Your task to perform on an android device: install app "Duolingo: language lessons" Image 0: 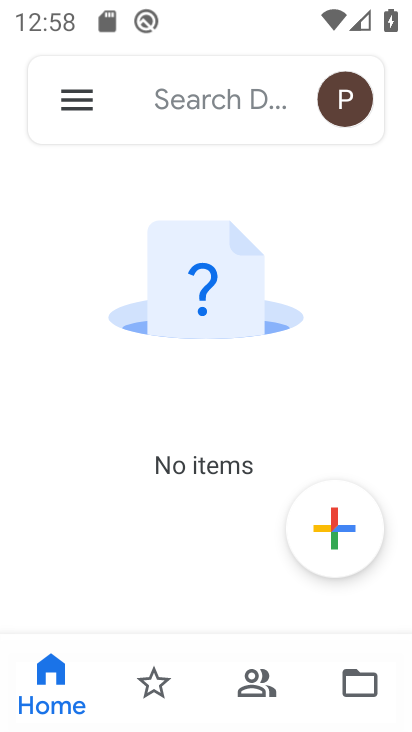
Step 0: press home button
Your task to perform on an android device: install app "Duolingo: language lessons" Image 1: 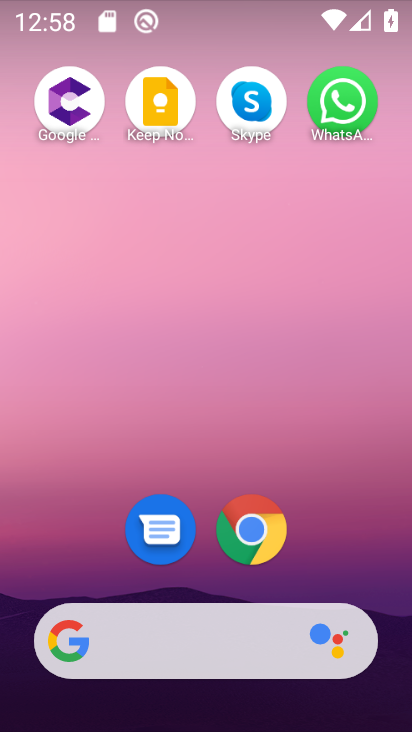
Step 1: drag from (237, 591) to (228, 113)
Your task to perform on an android device: install app "Duolingo: language lessons" Image 2: 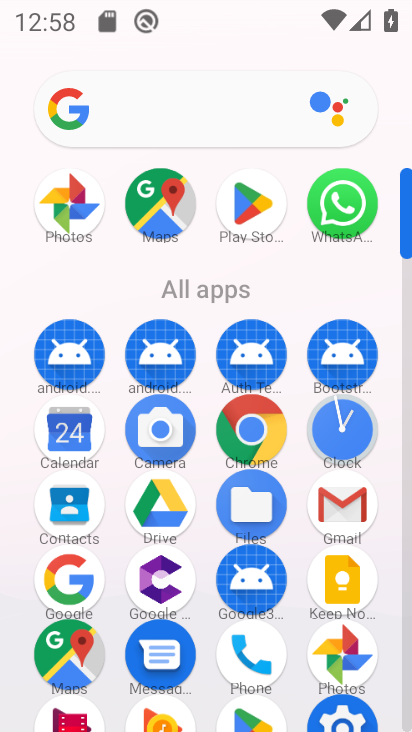
Step 2: click (262, 216)
Your task to perform on an android device: install app "Duolingo: language lessons" Image 3: 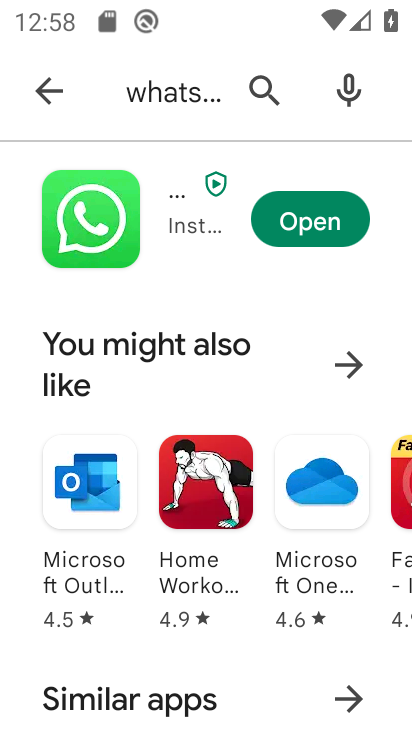
Step 3: click (48, 76)
Your task to perform on an android device: install app "Duolingo: language lessons" Image 4: 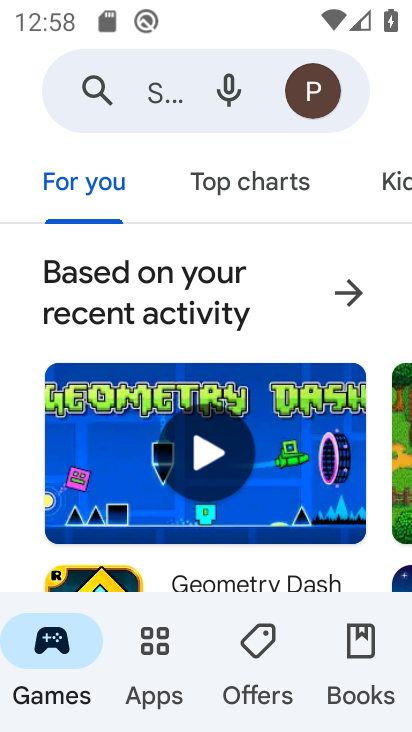
Step 4: click (155, 91)
Your task to perform on an android device: install app "Duolingo: language lessons" Image 5: 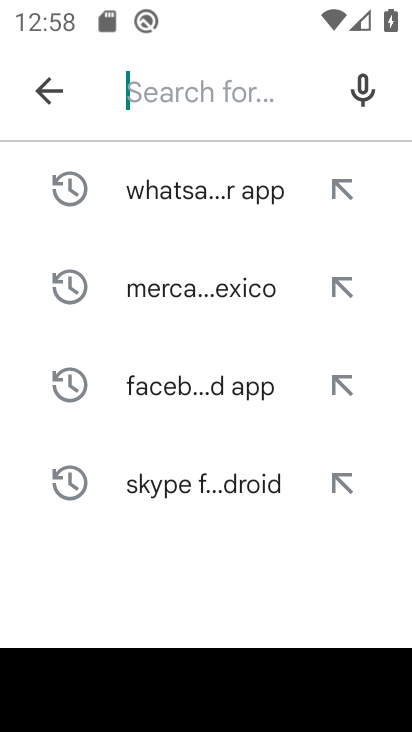
Step 5: type "Duolingo: language lessons "
Your task to perform on an android device: install app "Duolingo: language lessons" Image 6: 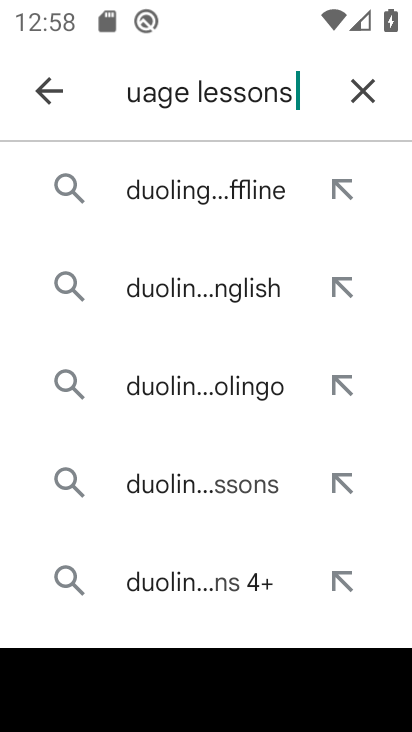
Step 6: click (127, 193)
Your task to perform on an android device: install app "Duolingo: language lessons" Image 7: 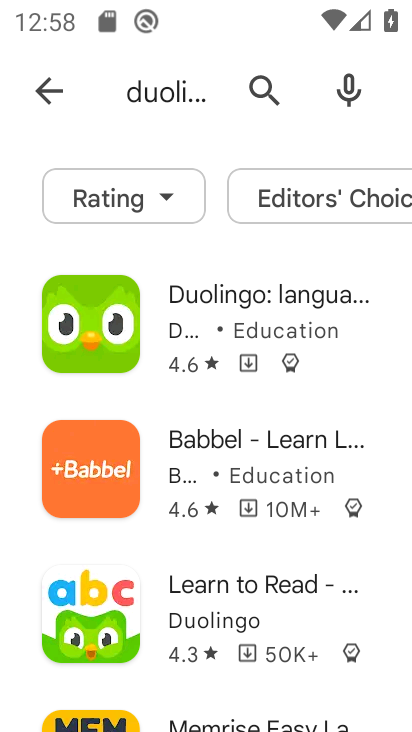
Step 7: click (243, 303)
Your task to perform on an android device: install app "Duolingo: language lessons" Image 8: 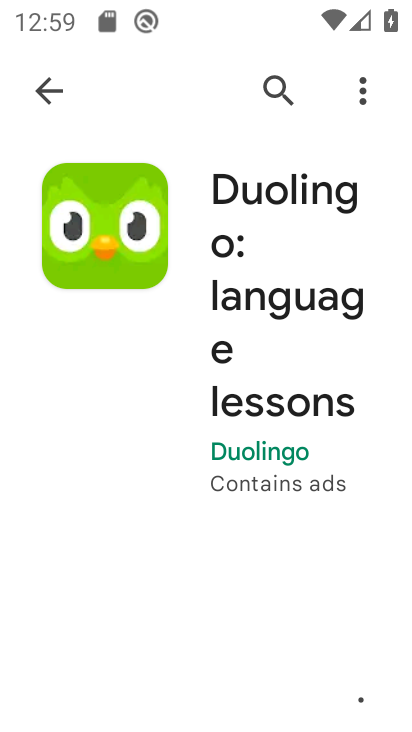
Step 8: drag from (197, 516) to (182, 212)
Your task to perform on an android device: install app "Duolingo: language lessons" Image 9: 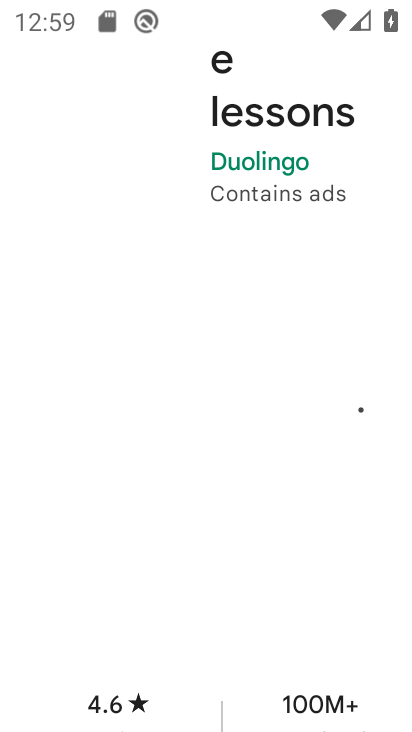
Step 9: drag from (169, 516) to (196, 211)
Your task to perform on an android device: install app "Duolingo: language lessons" Image 10: 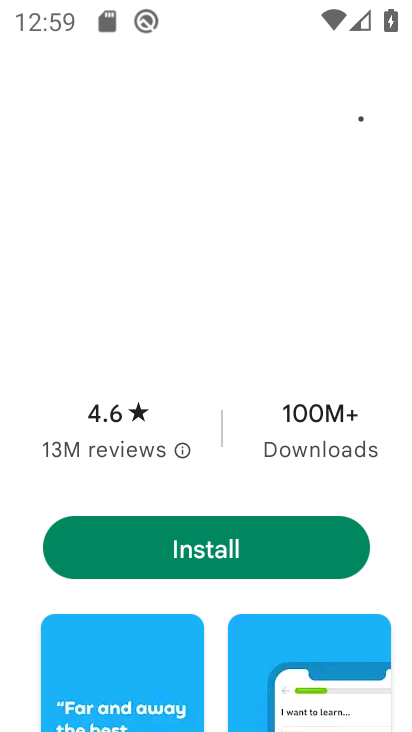
Step 10: click (212, 538)
Your task to perform on an android device: install app "Duolingo: language lessons" Image 11: 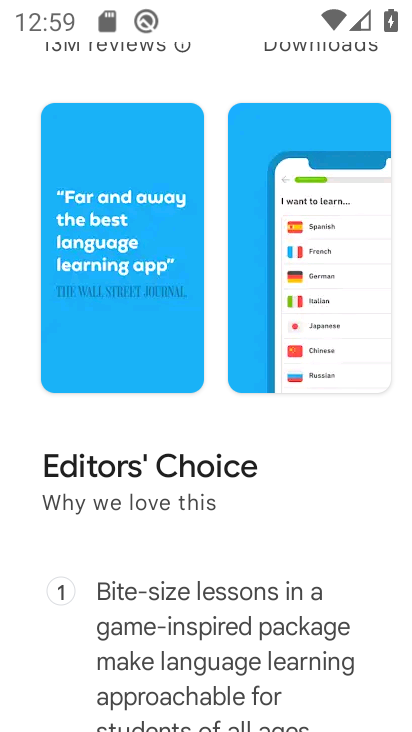
Step 11: task complete